Your task to perform on an android device: Open settings Image 0: 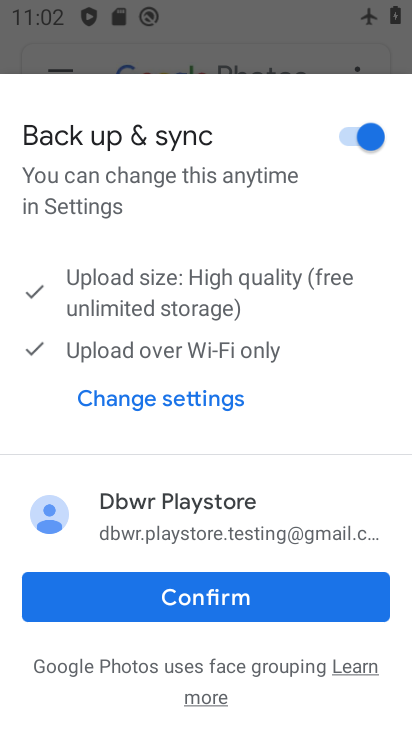
Step 0: press home button
Your task to perform on an android device: Open settings Image 1: 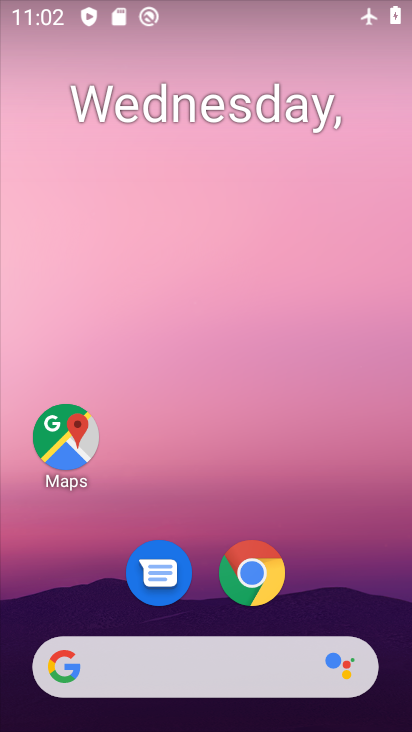
Step 1: drag from (365, 593) to (361, 150)
Your task to perform on an android device: Open settings Image 2: 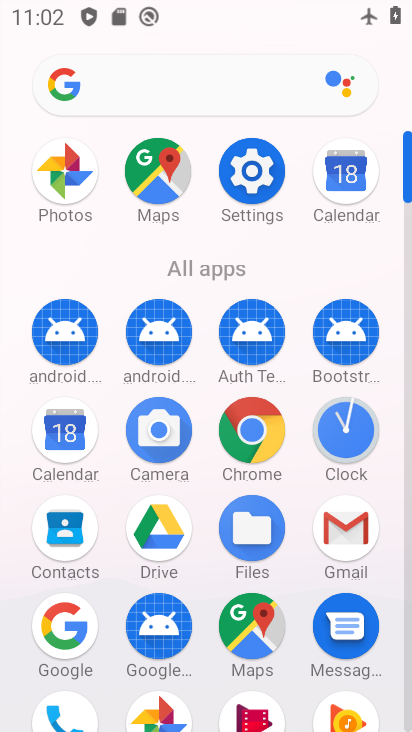
Step 2: click (269, 187)
Your task to perform on an android device: Open settings Image 3: 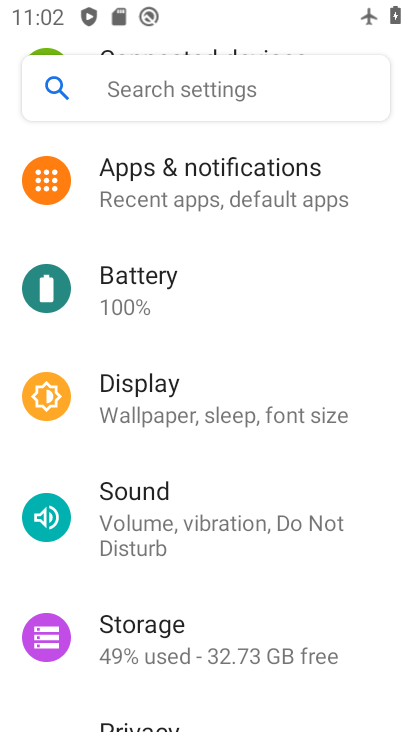
Step 3: task complete